Your task to perform on an android device: find which apps use the phone's location Image 0: 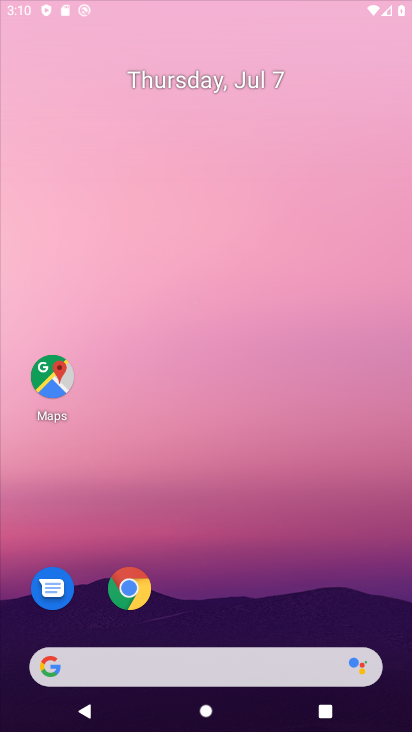
Step 0: drag from (283, 713) to (137, 172)
Your task to perform on an android device: find which apps use the phone's location Image 1: 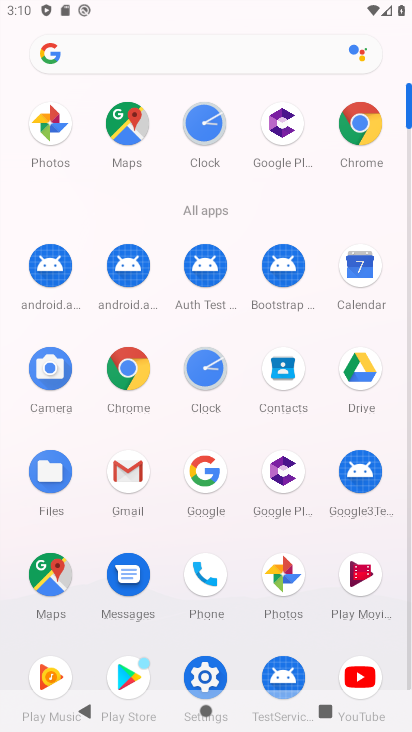
Step 1: click (208, 676)
Your task to perform on an android device: find which apps use the phone's location Image 2: 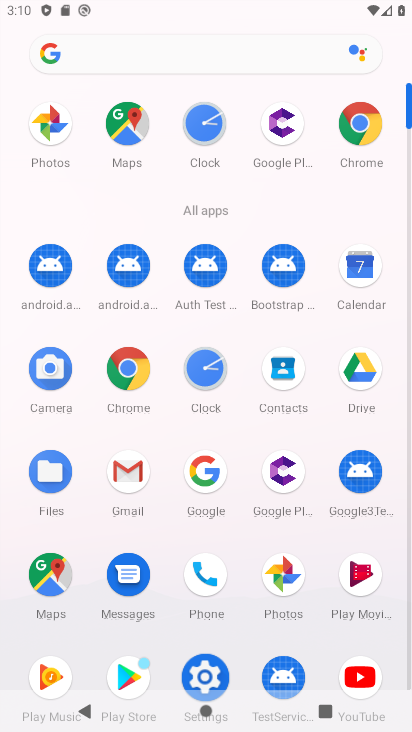
Step 2: click (208, 676)
Your task to perform on an android device: find which apps use the phone's location Image 3: 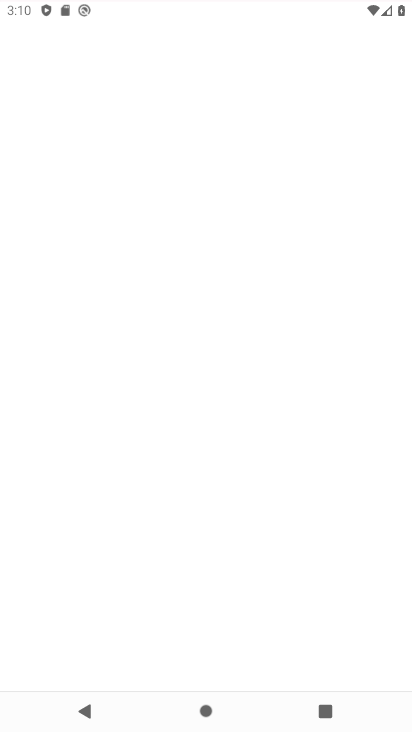
Step 3: click (208, 676)
Your task to perform on an android device: find which apps use the phone's location Image 4: 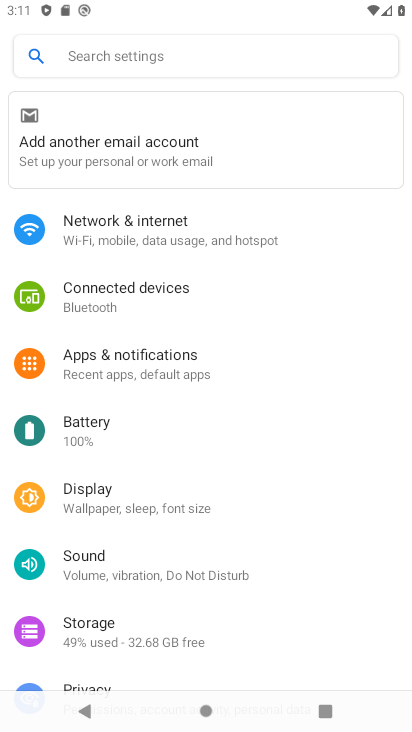
Step 4: drag from (141, 592) to (76, 191)
Your task to perform on an android device: find which apps use the phone's location Image 5: 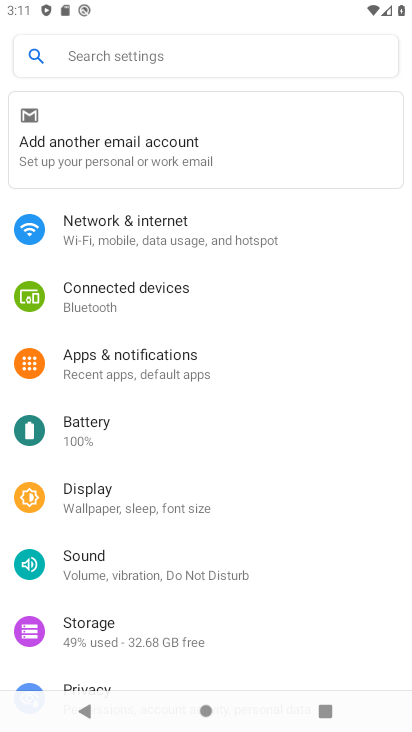
Step 5: drag from (120, 584) to (45, 226)
Your task to perform on an android device: find which apps use the phone's location Image 6: 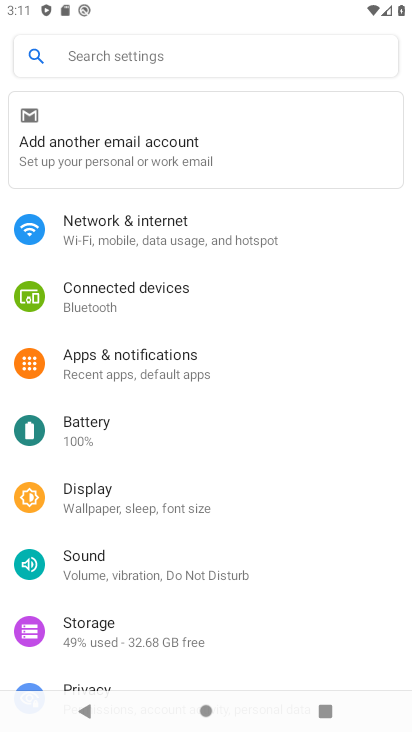
Step 6: drag from (85, 625) to (27, 170)
Your task to perform on an android device: find which apps use the phone's location Image 7: 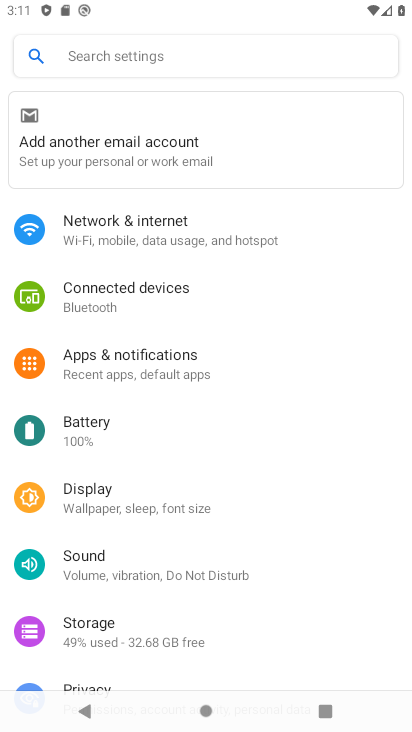
Step 7: drag from (183, 698) to (141, 292)
Your task to perform on an android device: find which apps use the phone's location Image 8: 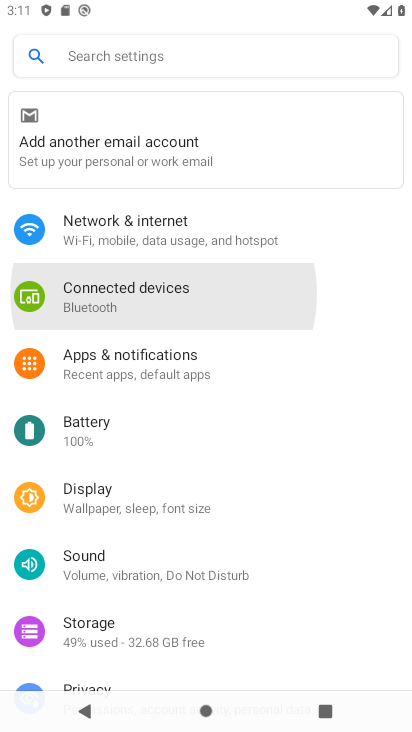
Step 8: drag from (251, 569) to (159, 250)
Your task to perform on an android device: find which apps use the phone's location Image 9: 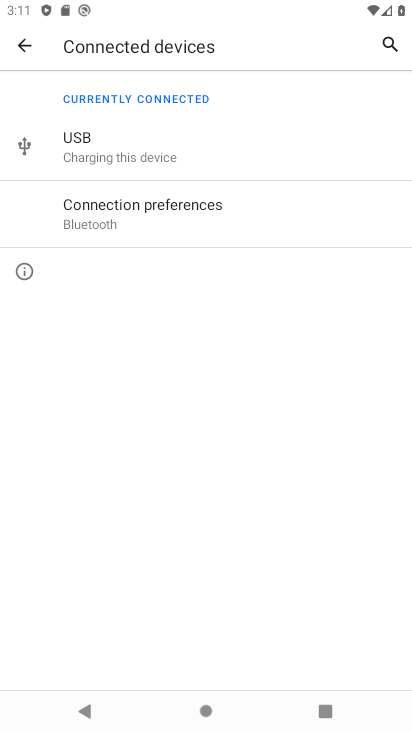
Step 9: click (22, 50)
Your task to perform on an android device: find which apps use the phone's location Image 10: 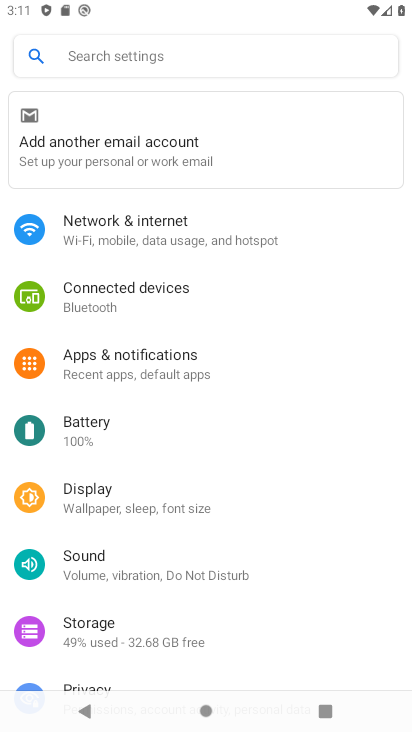
Step 10: drag from (152, 615) to (117, 295)
Your task to perform on an android device: find which apps use the phone's location Image 11: 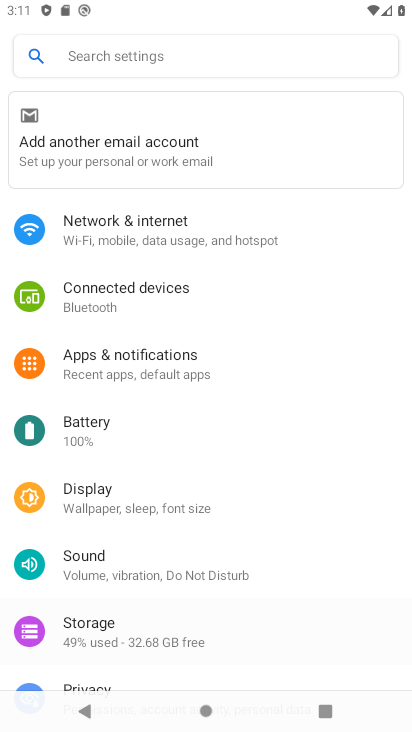
Step 11: drag from (267, 596) to (247, 304)
Your task to perform on an android device: find which apps use the phone's location Image 12: 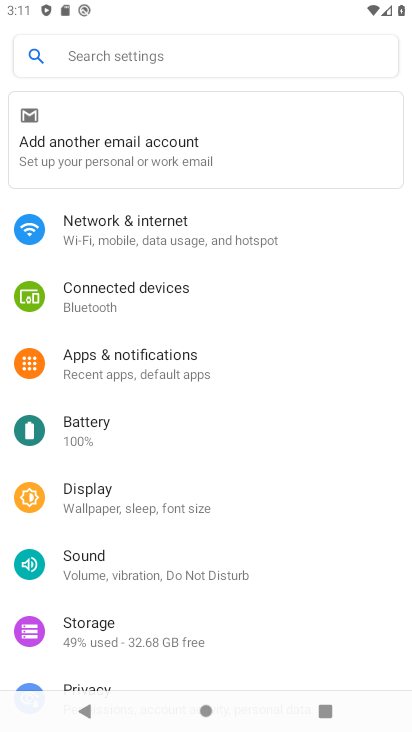
Step 12: drag from (202, 644) to (149, 236)
Your task to perform on an android device: find which apps use the phone's location Image 13: 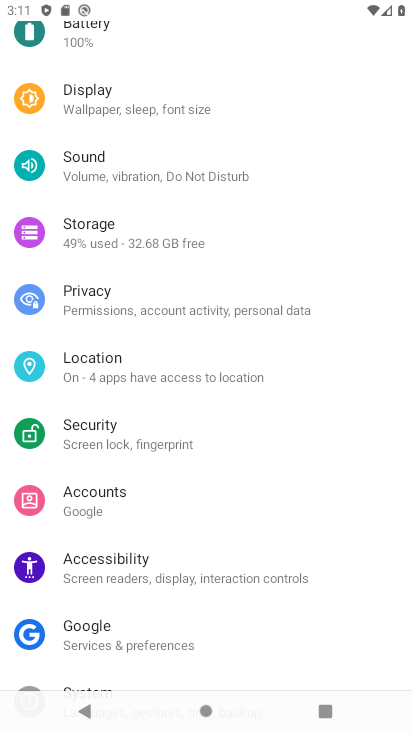
Step 13: click (98, 372)
Your task to perform on an android device: find which apps use the phone's location Image 14: 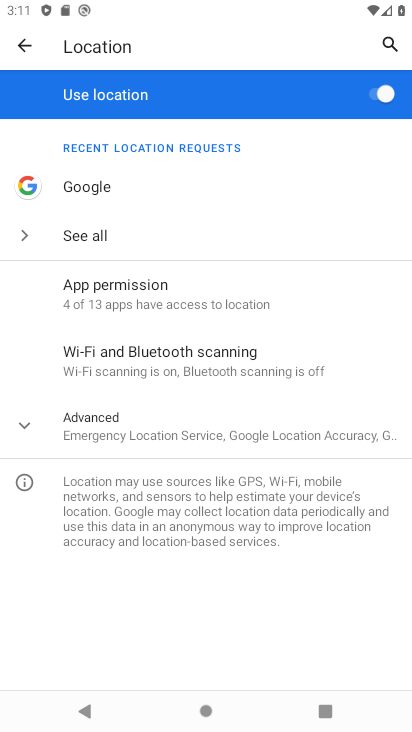
Step 14: click (108, 292)
Your task to perform on an android device: find which apps use the phone's location Image 15: 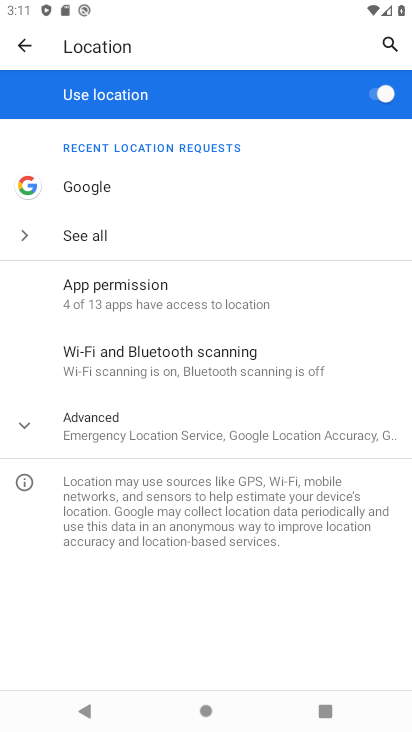
Step 15: click (109, 293)
Your task to perform on an android device: find which apps use the phone's location Image 16: 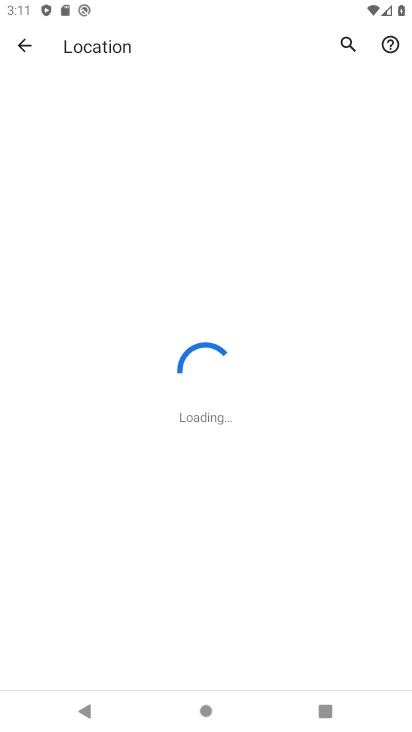
Step 16: click (118, 293)
Your task to perform on an android device: find which apps use the phone's location Image 17: 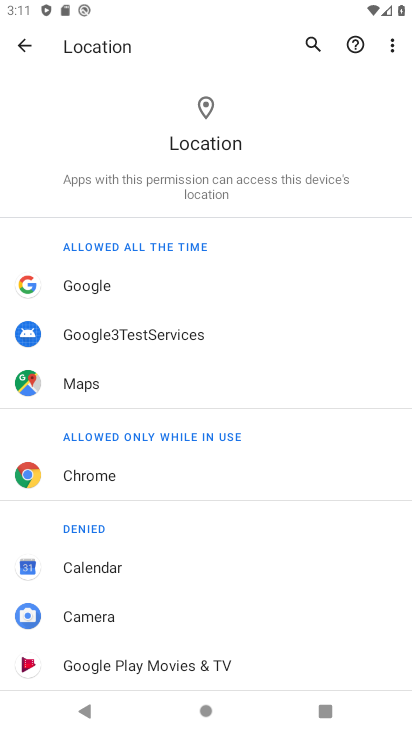
Step 17: task complete